Your task to perform on an android device: change the clock display to show seconds Image 0: 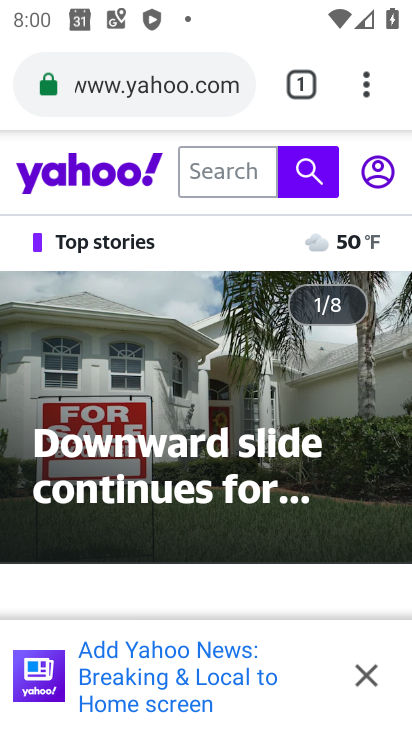
Step 0: press home button
Your task to perform on an android device: change the clock display to show seconds Image 1: 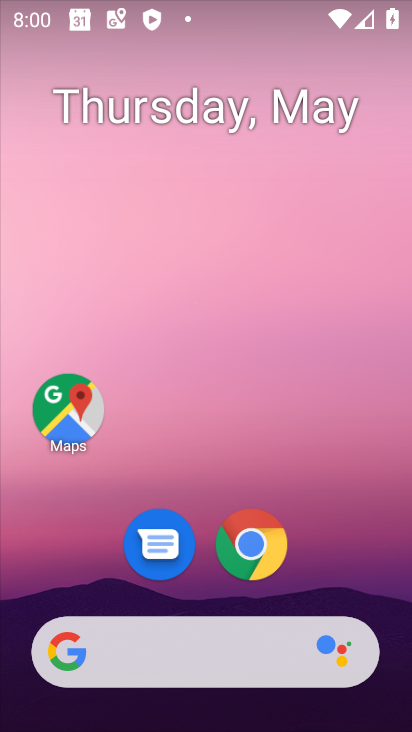
Step 1: drag from (333, 581) to (347, 72)
Your task to perform on an android device: change the clock display to show seconds Image 2: 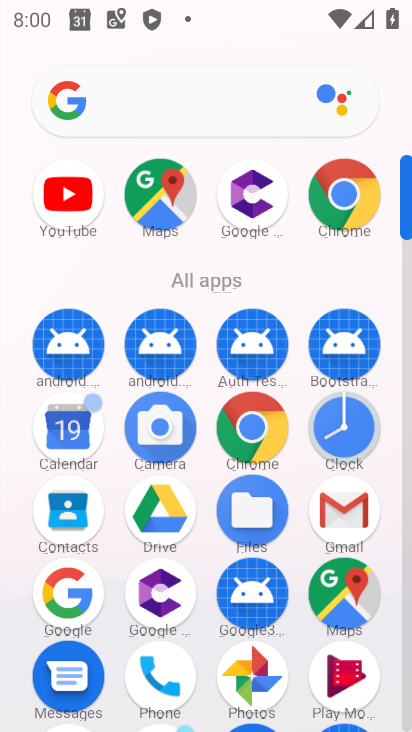
Step 2: click (359, 444)
Your task to perform on an android device: change the clock display to show seconds Image 3: 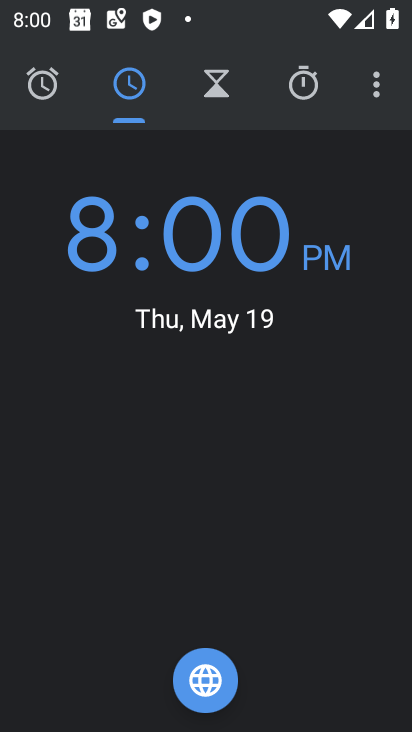
Step 3: click (373, 85)
Your task to perform on an android device: change the clock display to show seconds Image 4: 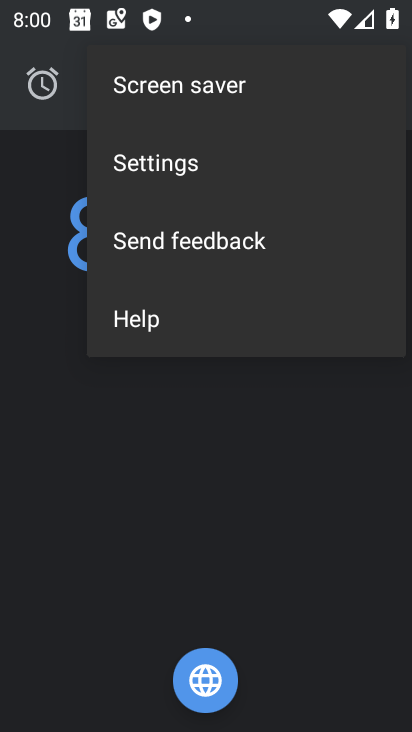
Step 4: click (203, 173)
Your task to perform on an android device: change the clock display to show seconds Image 5: 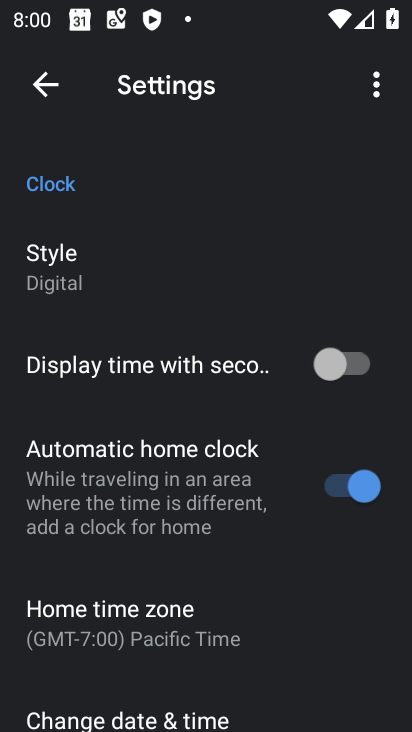
Step 5: drag from (220, 603) to (245, 262)
Your task to perform on an android device: change the clock display to show seconds Image 6: 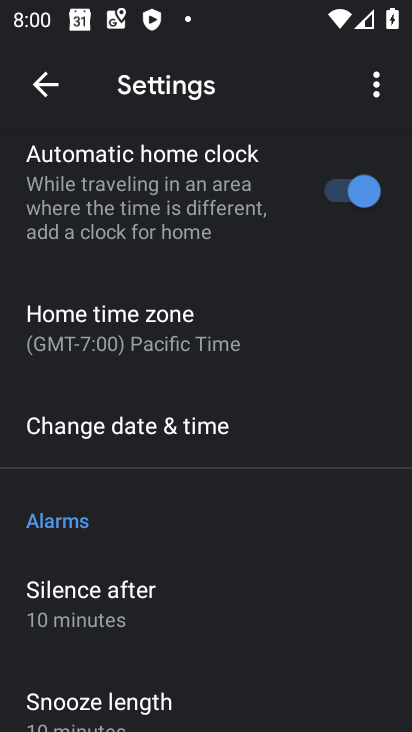
Step 6: drag from (191, 475) to (171, 251)
Your task to perform on an android device: change the clock display to show seconds Image 7: 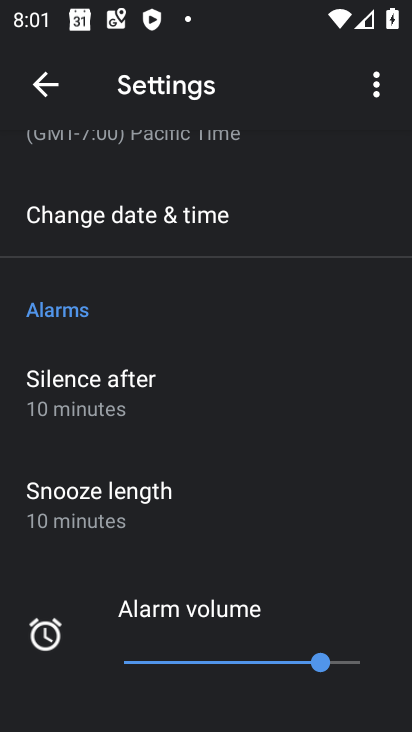
Step 7: drag from (56, 258) to (219, 705)
Your task to perform on an android device: change the clock display to show seconds Image 8: 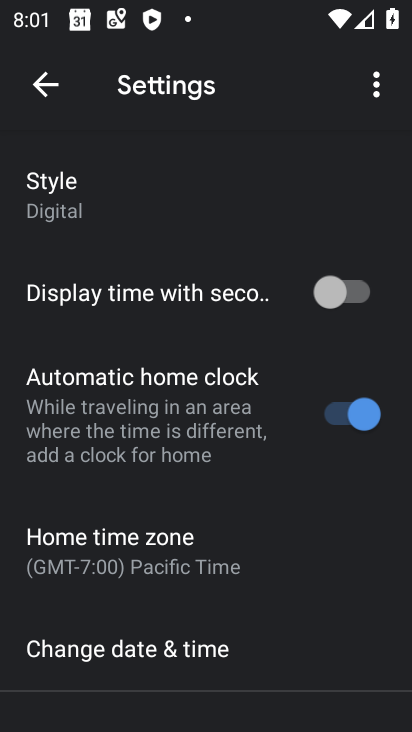
Step 8: click (336, 306)
Your task to perform on an android device: change the clock display to show seconds Image 9: 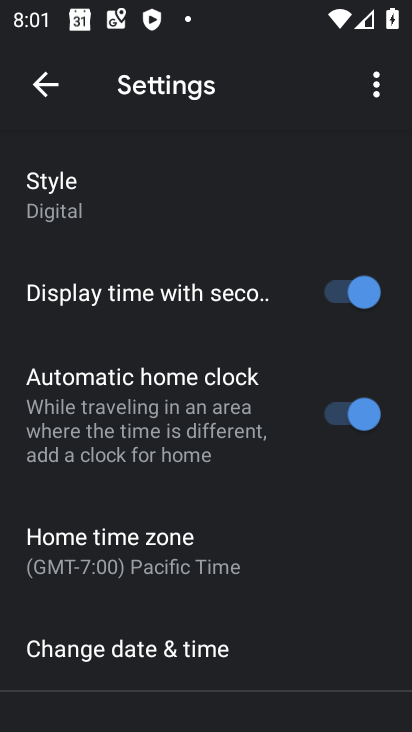
Step 9: task complete